Your task to perform on an android device: turn off sleep mode Image 0: 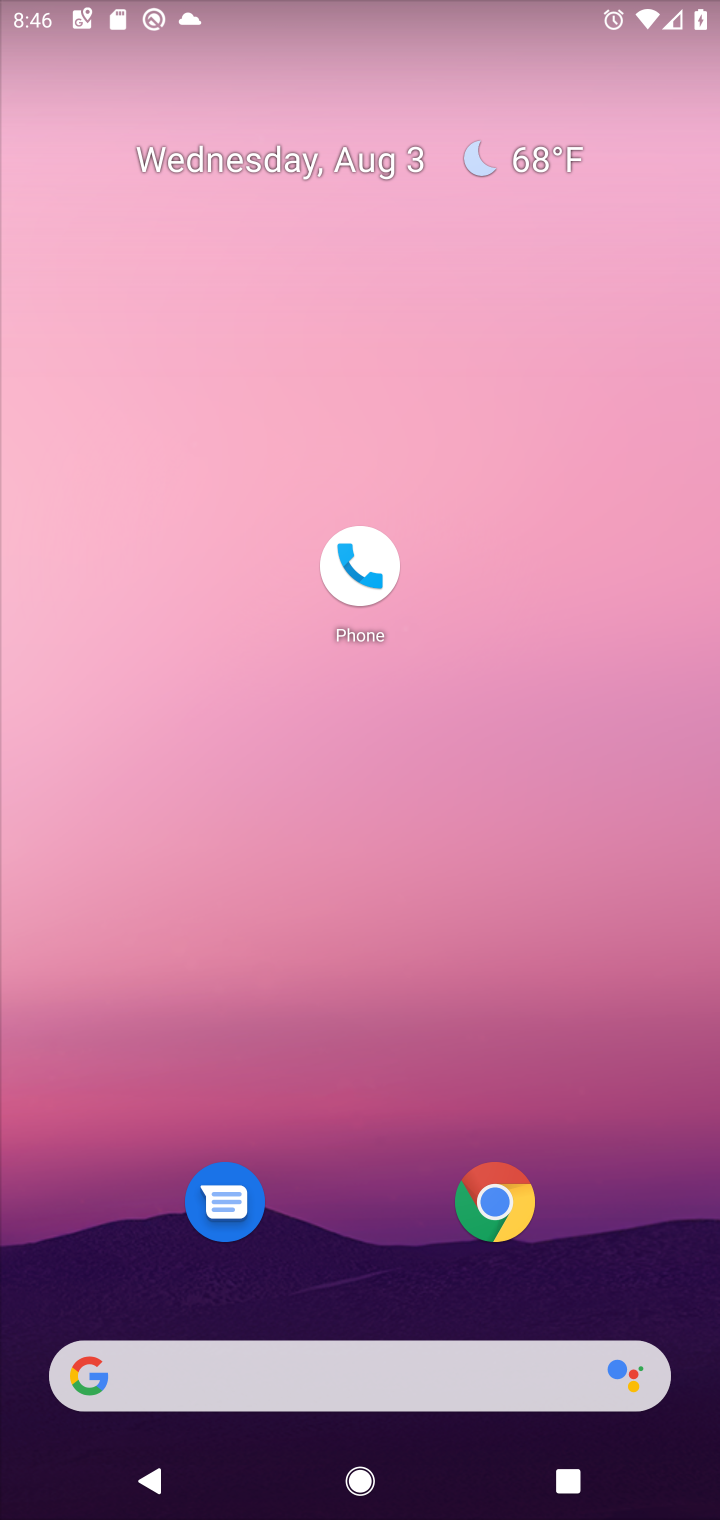
Step 0: drag from (235, 1390) to (332, 119)
Your task to perform on an android device: turn off sleep mode Image 1: 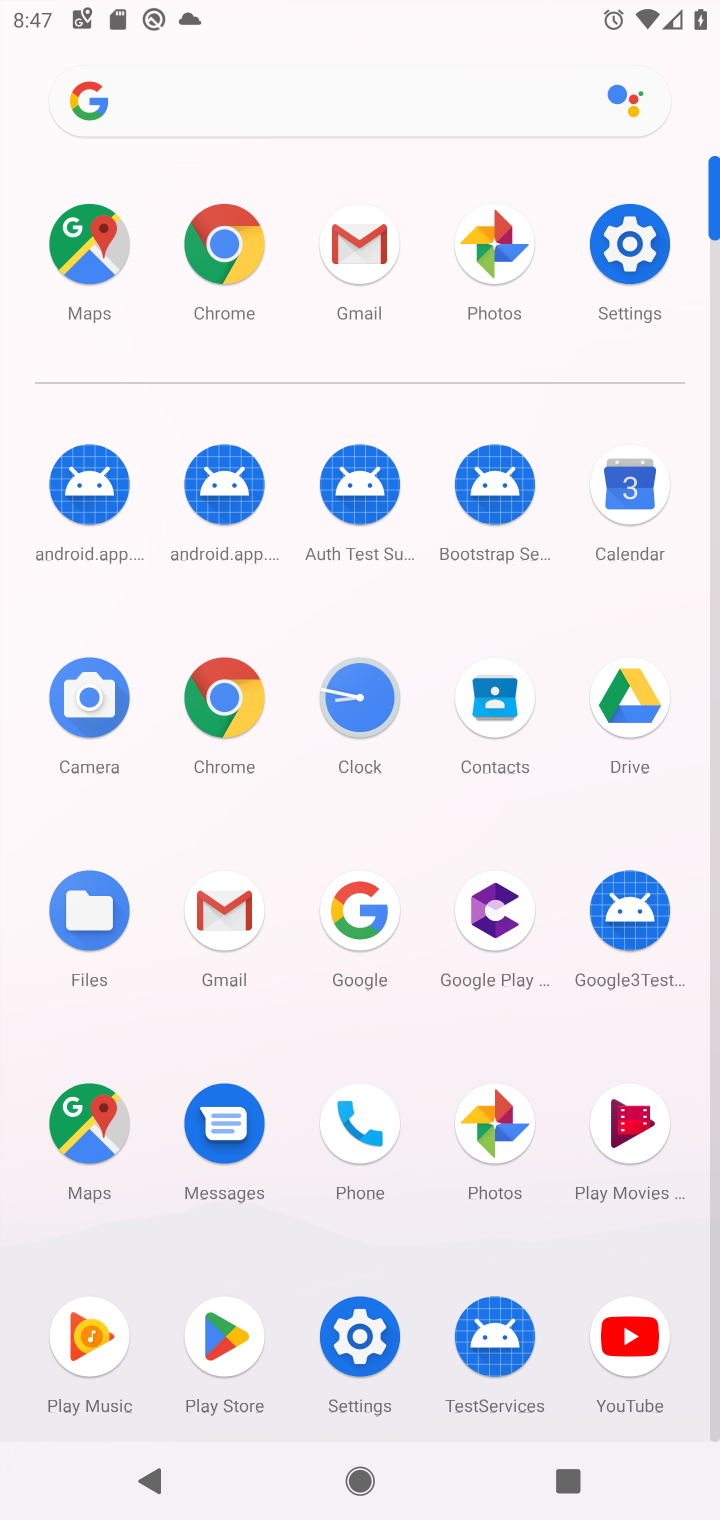
Step 1: click (627, 246)
Your task to perform on an android device: turn off sleep mode Image 2: 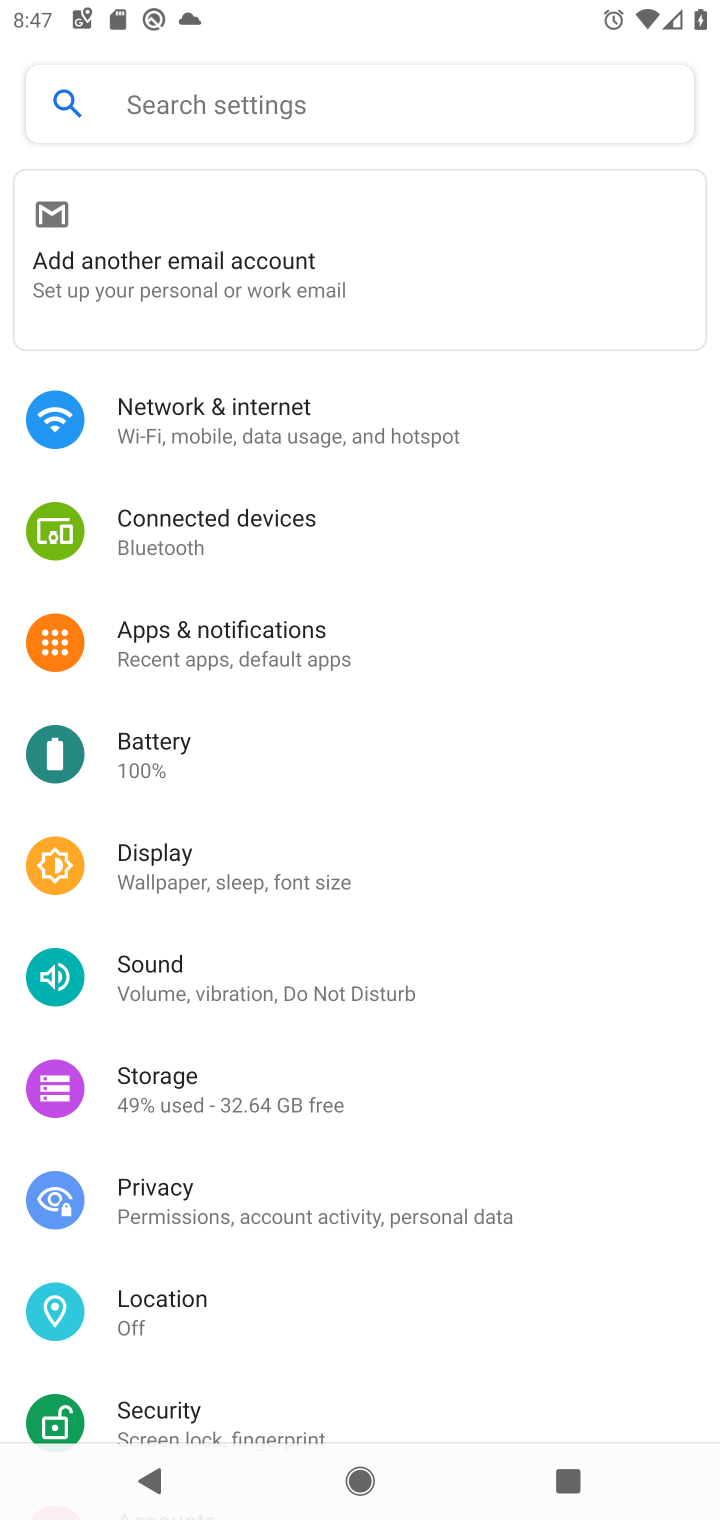
Step 2: click (186, 868)
Your task to perform on an android device: turn off sleep mode Image 3: 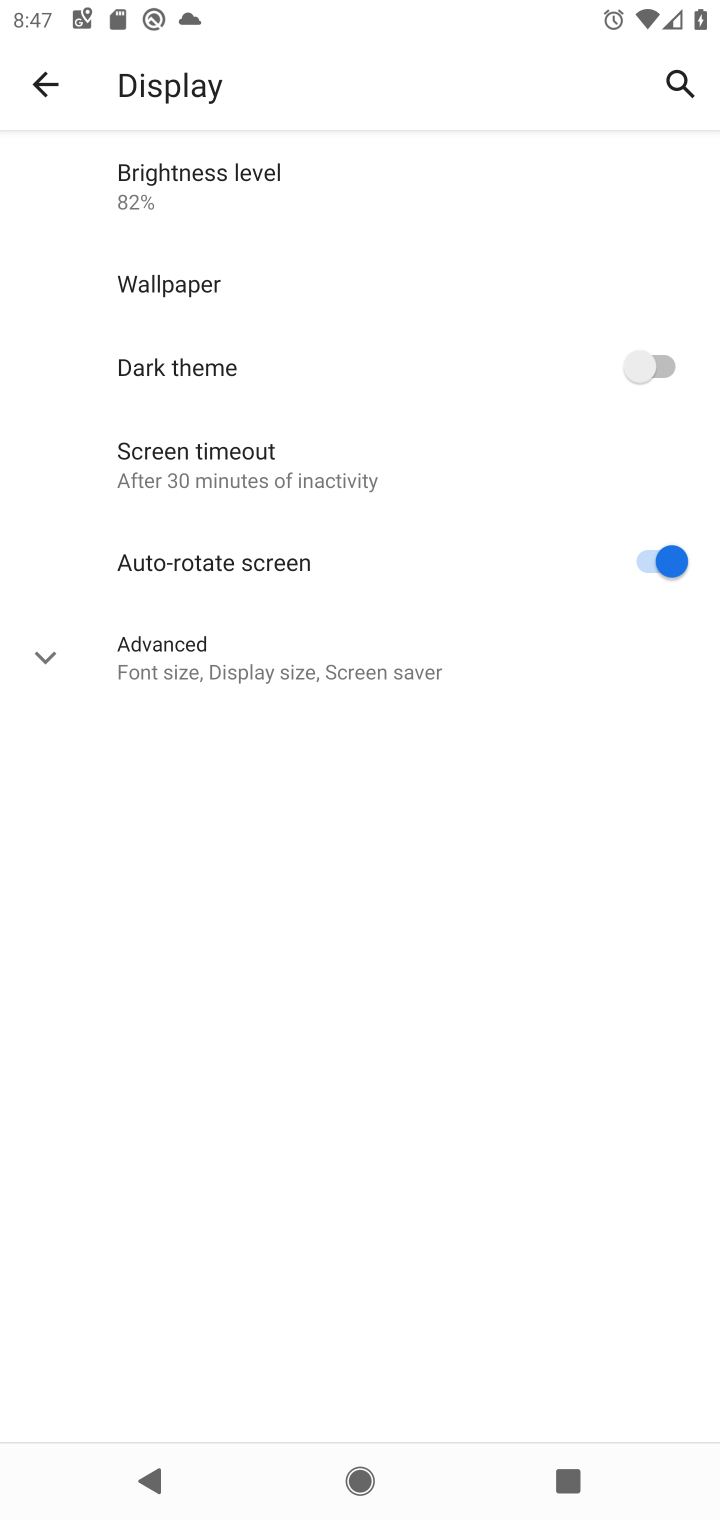
Step 3: click (344, 674)
Your task to perform on an android device: turn off sleep mode Image 4: 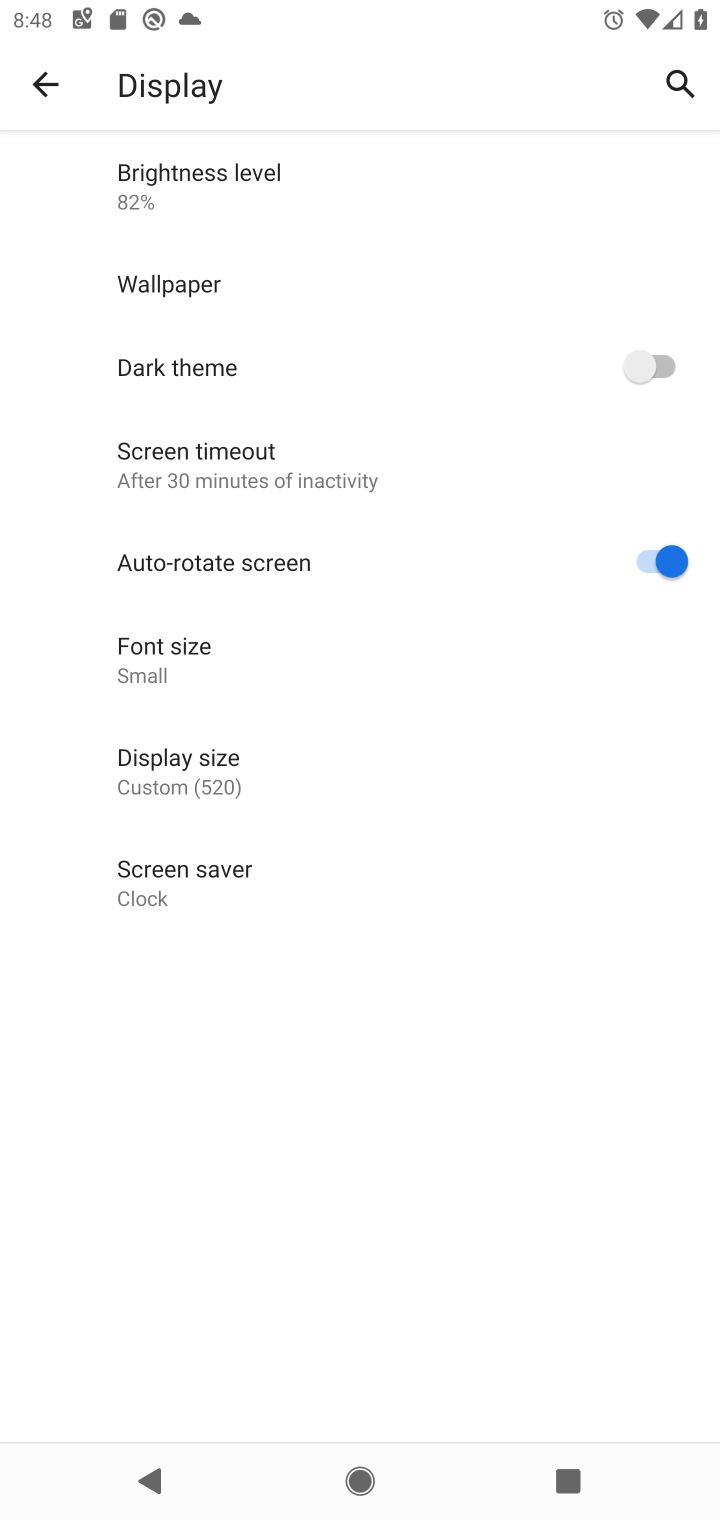
Step 4: task complete